Your task to perform on an android device: Set the phone to "Do not disturb". Image 0: 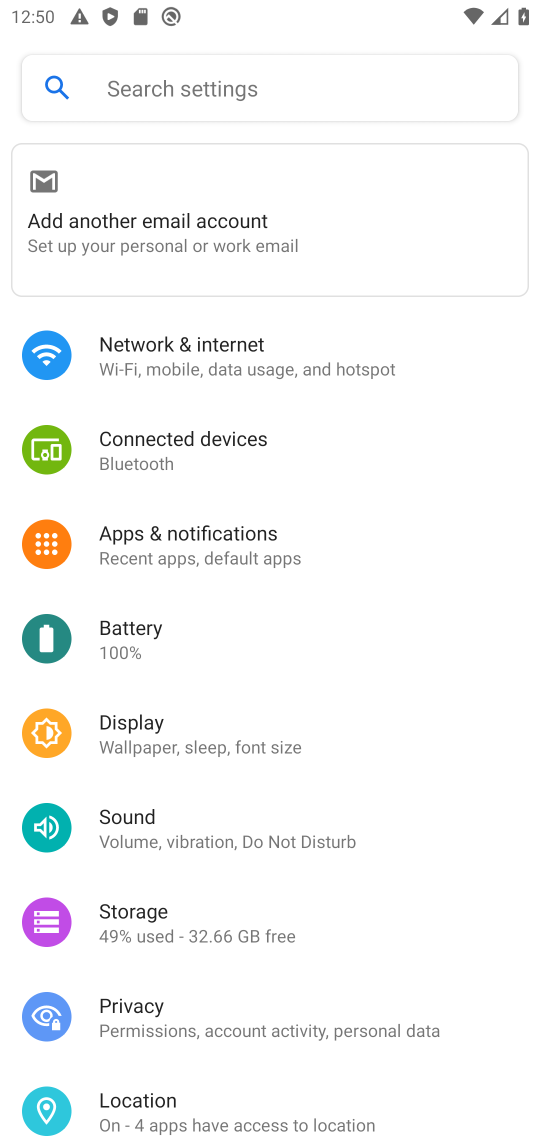
Step 0: click (139, 820)
Your task to perform on an android device: Set the phone to "Do not disturb". Image 1: 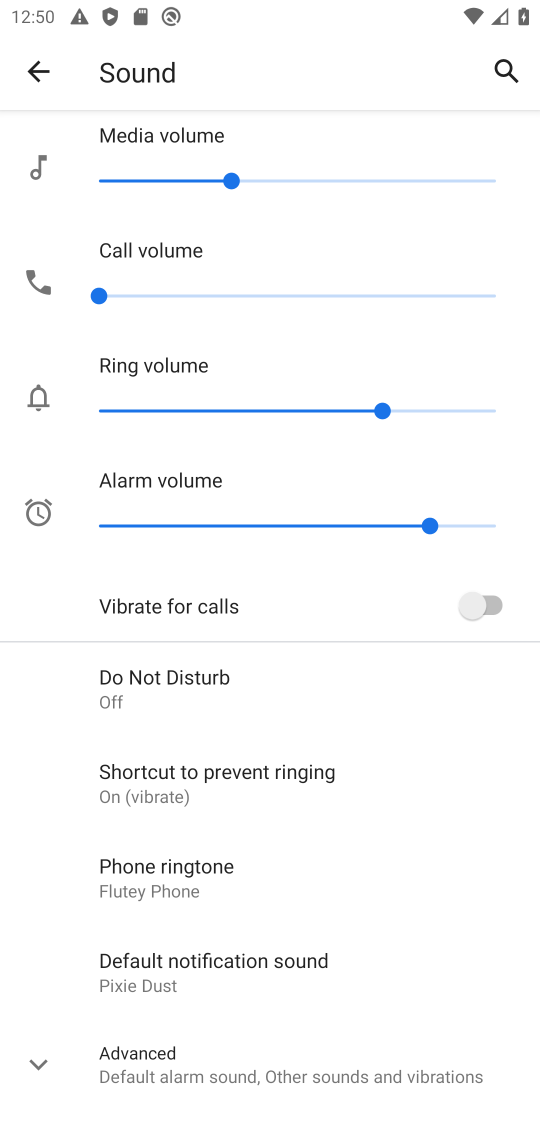
Step 1: click (241, 686)
Your task to perform on an android device: Set the phone to "Do not disturb". Image 2: 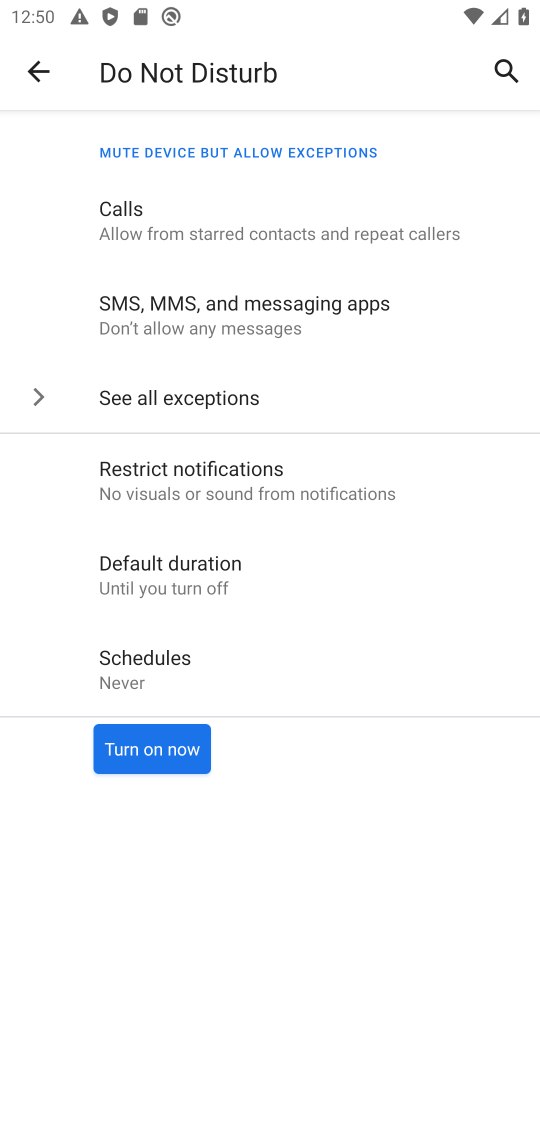
Step 2: click (151, 764)
Your task to perform on an android device: Set the phone to "Do not disturb". Image 3: 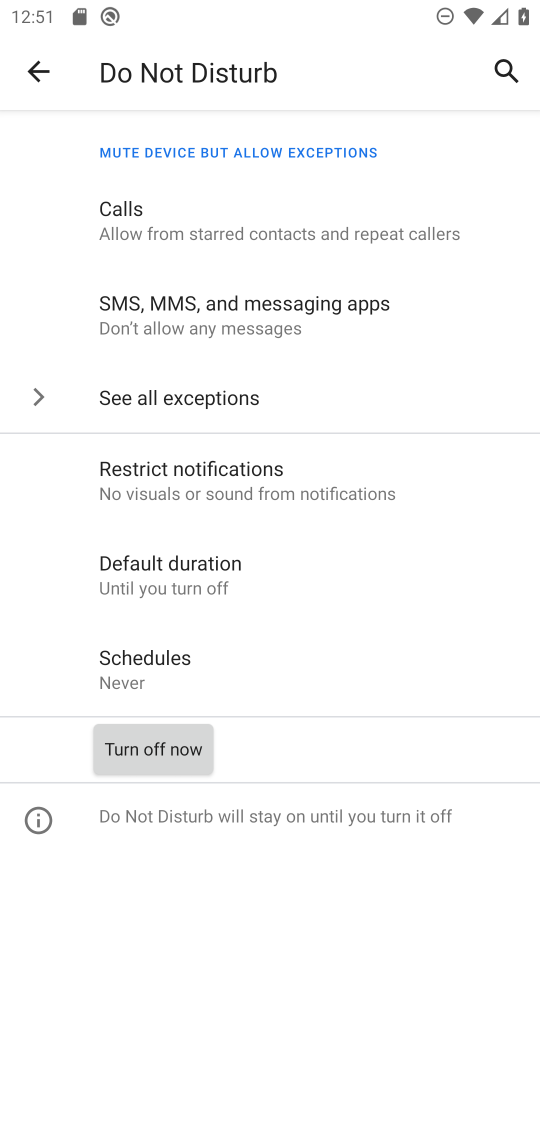
Step 3: task complete